Your task to perform on an android device: turn off translation in the chrome app Image 0: 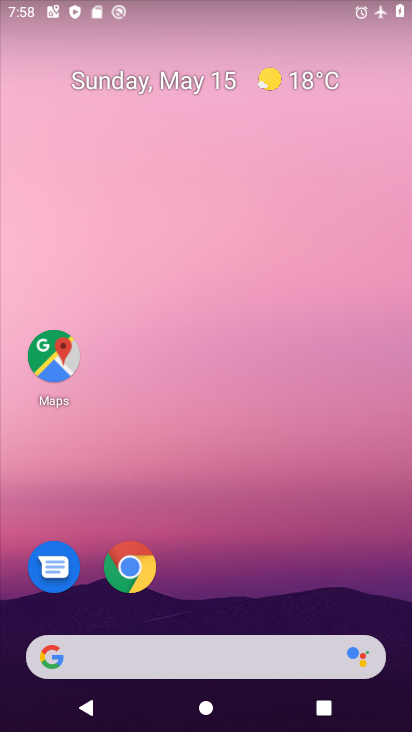
Step 0: click (135, 569)
Your task to perform on an android device: turn off translation in the chrome app Image 1: 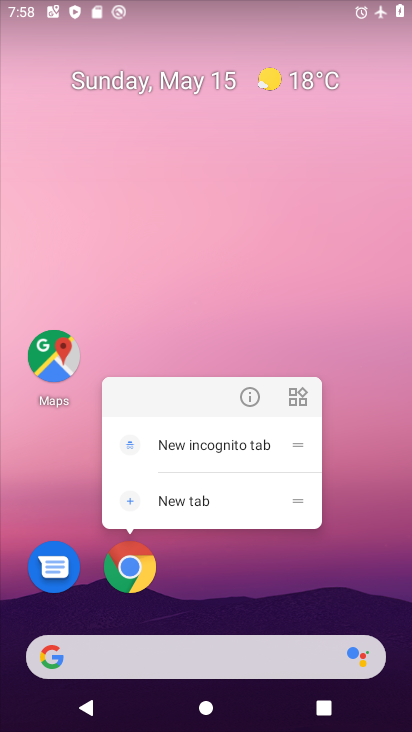
Step 1: click (247, 400)
Your task to perform on an android device: turn off translation in the chrome app Image 2: 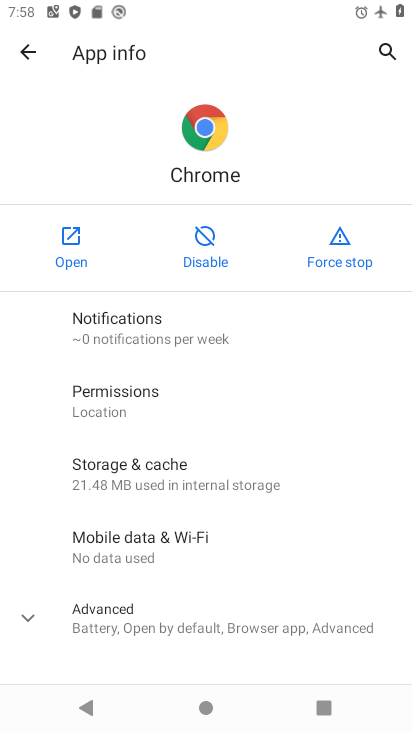
Step 2: click (200, 719)
Your task to perform on an android device: turn off translation in the chrome app Image 3: 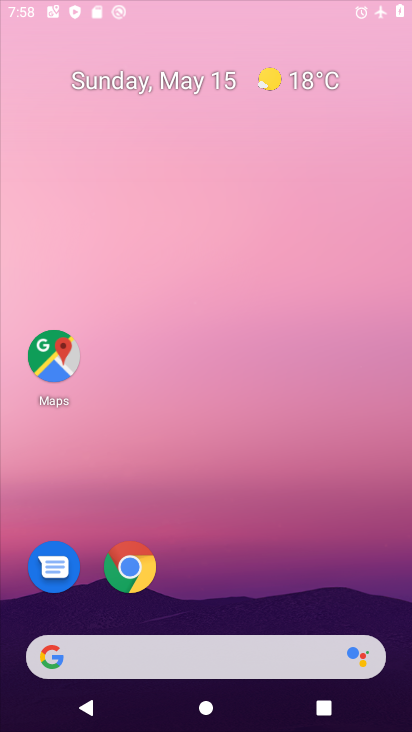
Step 3: press home button
Your task to perform on an android device: turn off translation in the chrome app Image 4: 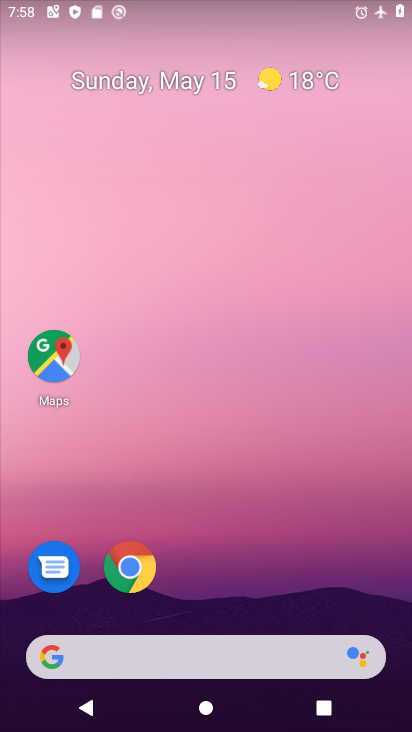
Step 4: click (130, 565)
Your task to perform on an android device: turn off translation in the chrome app Image 5: 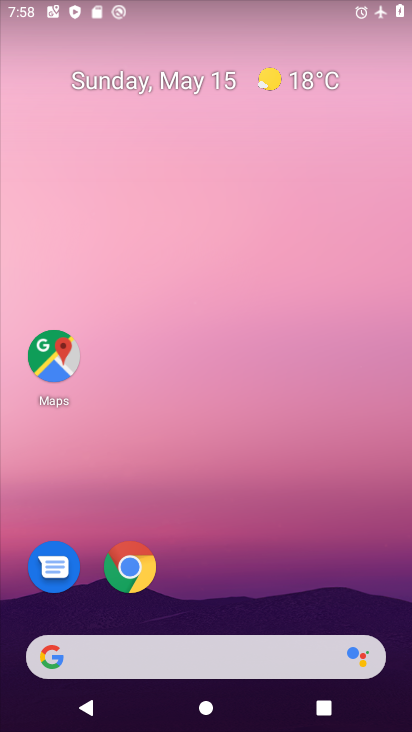
Step 5: click (130, 565)
Your task to perform on an android device: turn off translation in the chrome app Image 6: 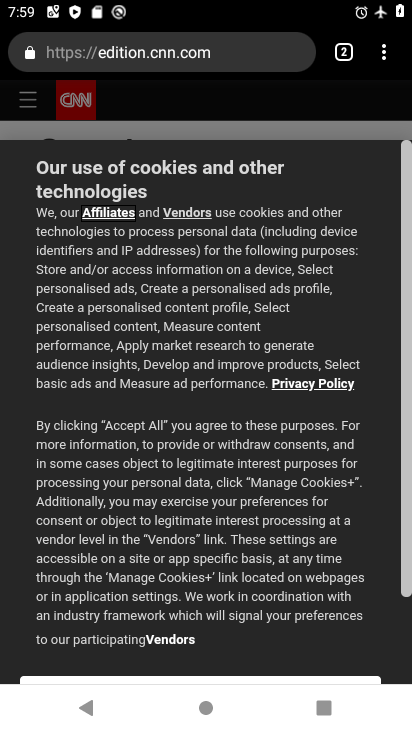
Step 6: click (381, 58)
Your task to perform on an android device: turn off translation in the chrome app Image 7: 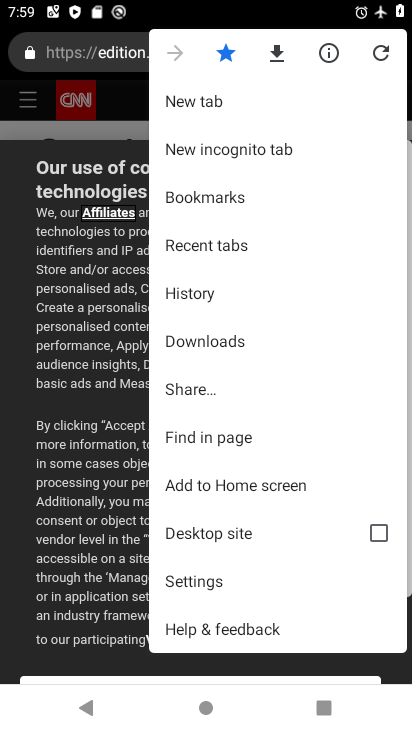
Step 7: click (217, 578)
Your task to perform on an android device: turn off translation in the chrome app Image 8: 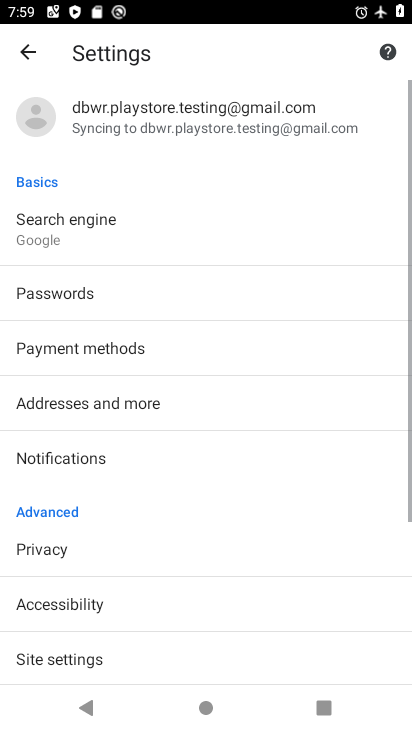
Step 8: drag from (226, 628) to (272, 32)
Your task to perform on an android device: turn off translation in the chrome app Image 9: 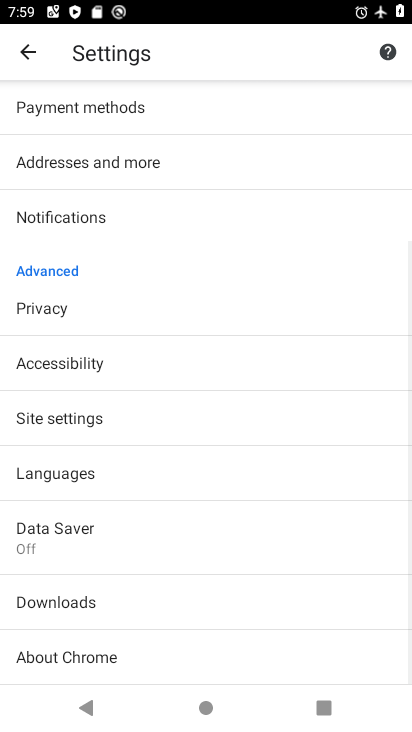
Step 9: click (101, 465)
Your task to perform on an android device: turn off translation in the chrome app Image 10: 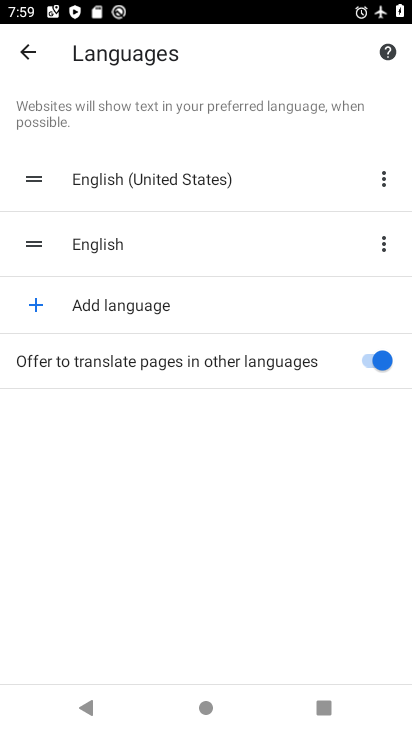
Step 10: click (388, 359)
Your task to perform on an android device: turn off translation in the chrome app Image 11: 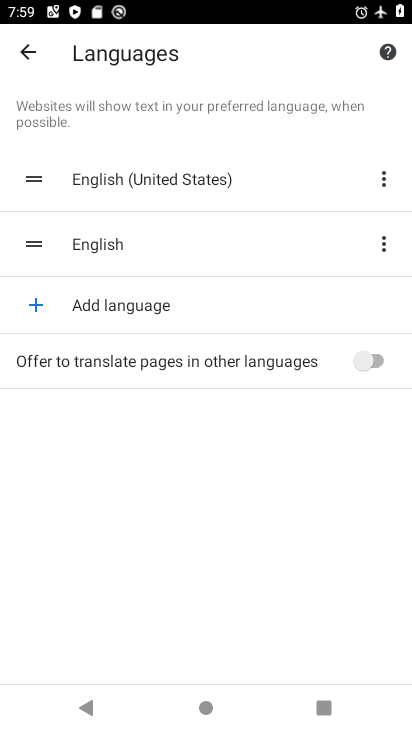
Step 11: task complete